Your task to perform on an android device: Is it going to rain this weekend? Image 0: 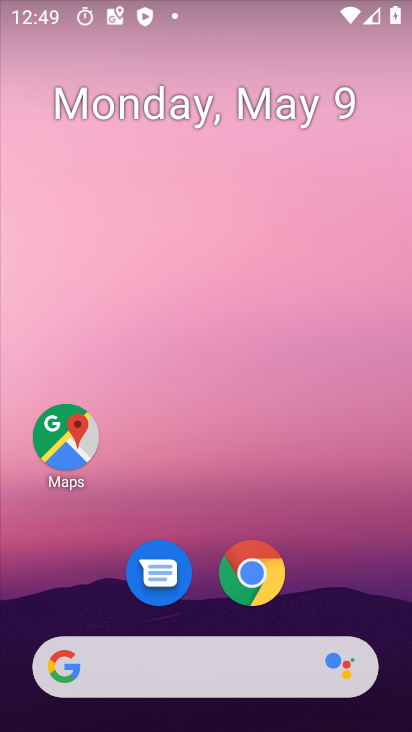
Step 0: click (266, 568)
Your task to perform on an android device: Is it going to rain this weekend? Image 1: 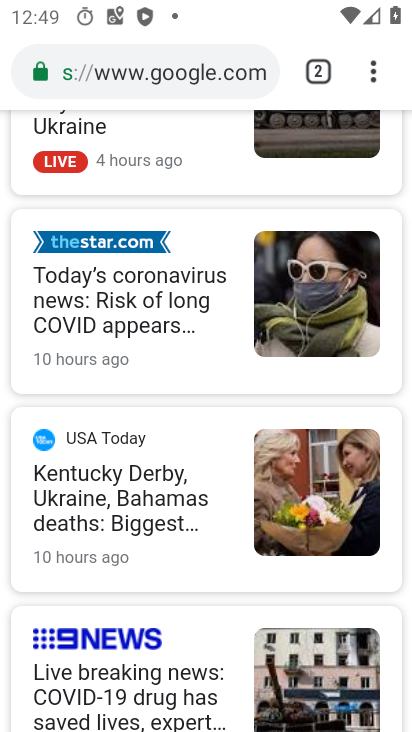
Step 1: click (313, 61)
Your task to perform on an android device: Is it going to rain this weekend? Image 2: 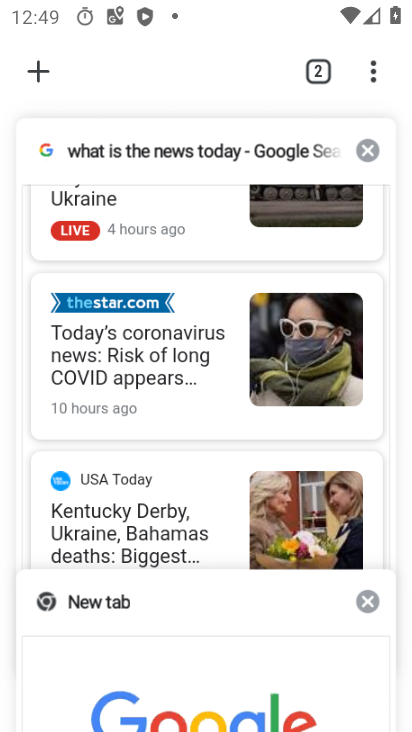
Step 2: click (32, 64)
Your task to perform on an android device: Is it going to rain this weekend? Image 3: 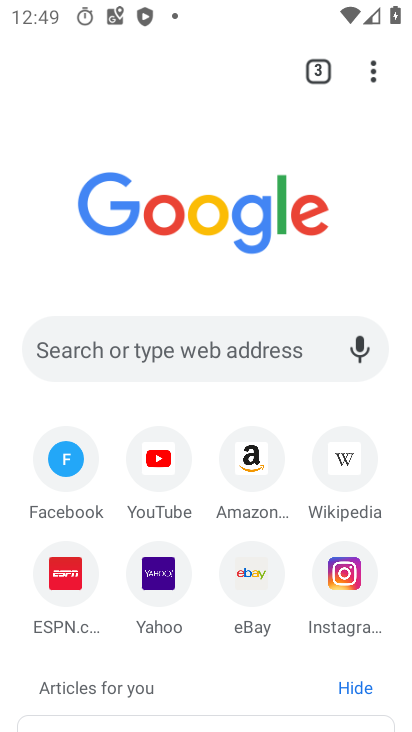
Step 3: click (204, 356)
Your task to perform on an android device: Is it going to rain this weekend? Image 4: 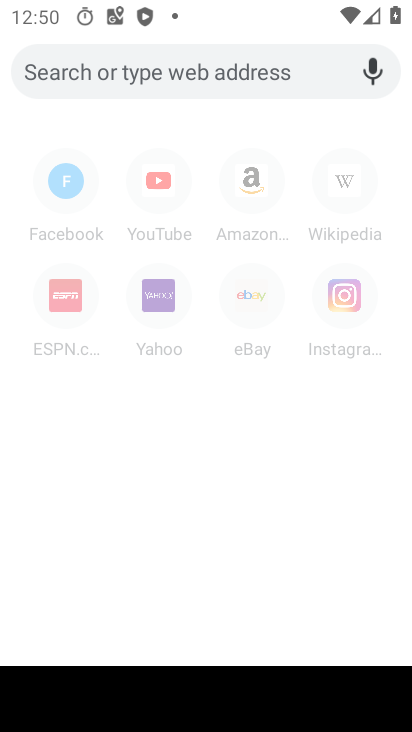
Step 4: type "is it going to rain this weekend"
Your task to perform on an android device: Is it going to rain this weekend? Image 5: 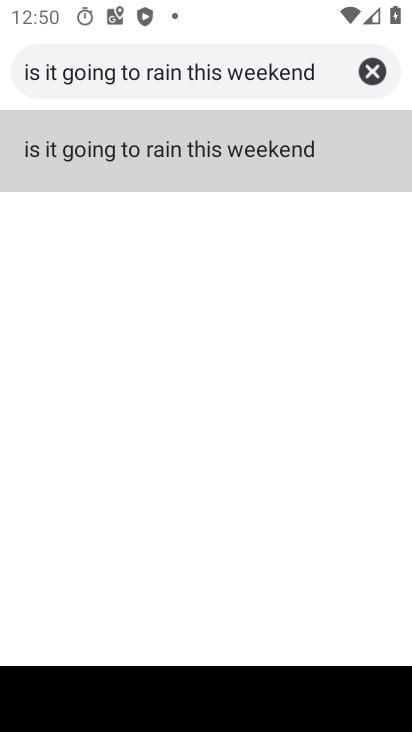
Step 5: click (261, 139)
Your task to perform on an android device: Is it going to rain this weekend? Image 6: 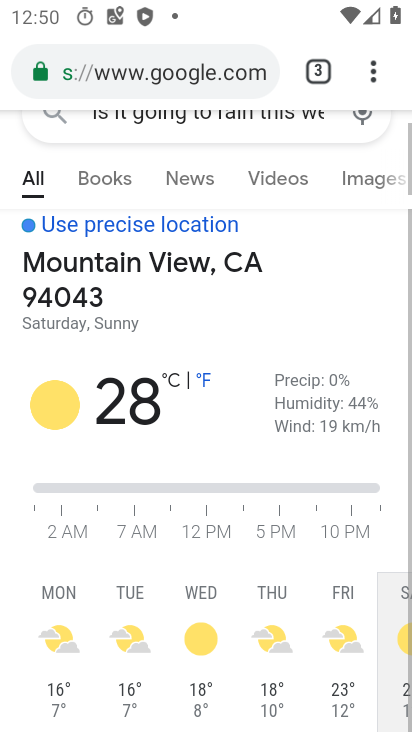
Step 6: task complete